Your task to perform on an android device: change the clock style Image 0: 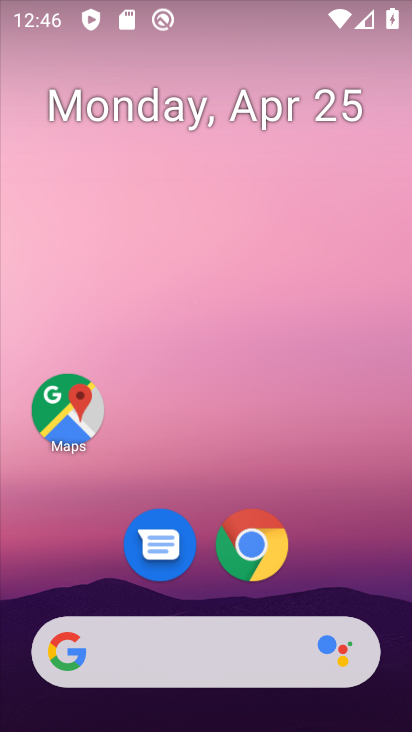
Step 0: drag from (334, 567) to (321, 109)
Your task to perform on an android device: change the clock style Image 1: 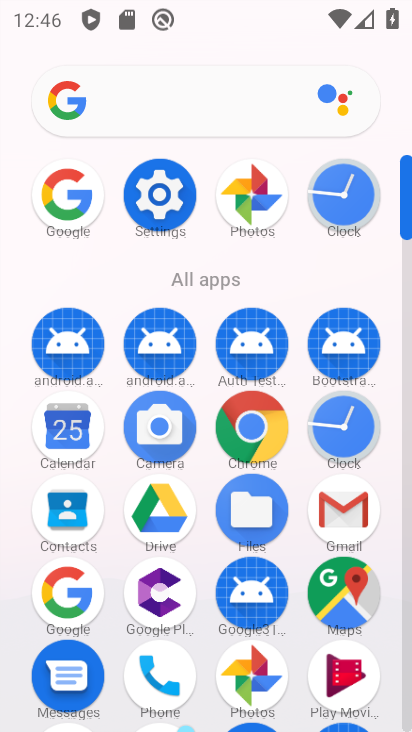
Step 1: click (344, 212)
Your task to perform on an android device: change the clock style Image 2: 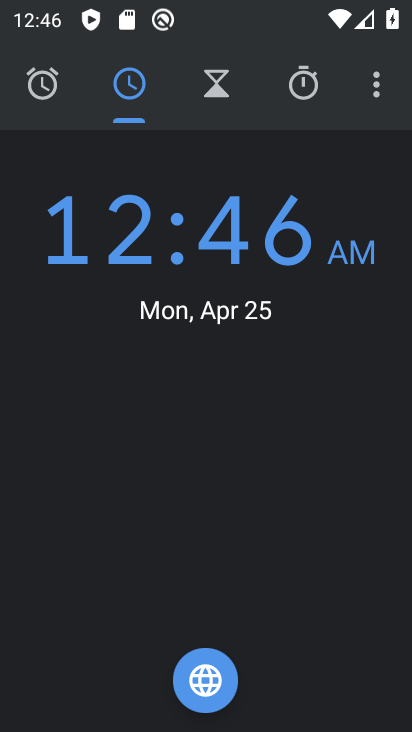
Step 2: click (371, 85)
Your task to perform on an android device: change the clock style Image 3: 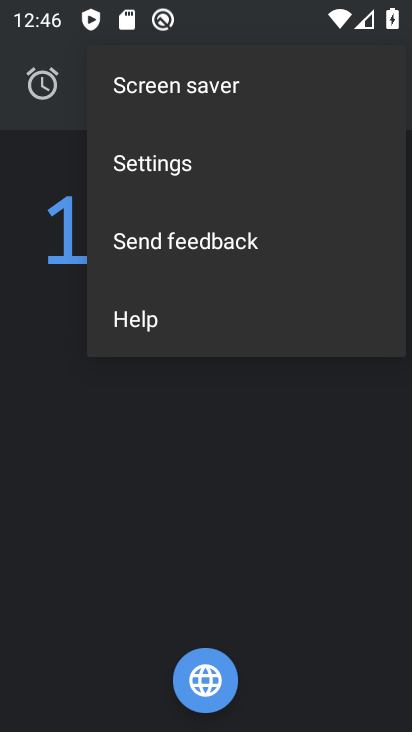
Step 3: click (208, 173)
Your task to perform on an android device: change the clock style Image 4: 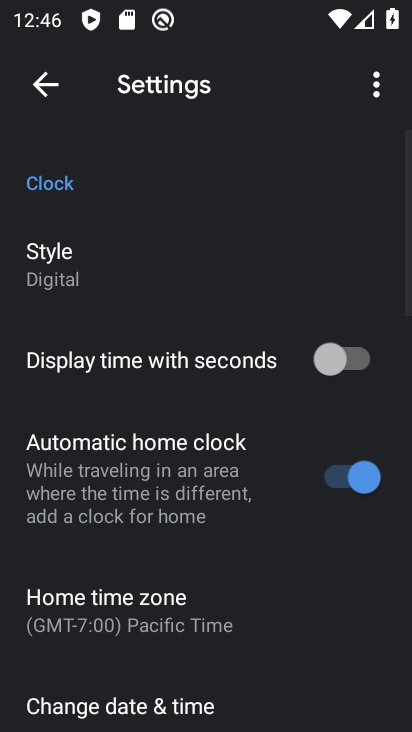
Step 4: click (92, 270)
Your task to perform on an android device: change the clock style Image 5: 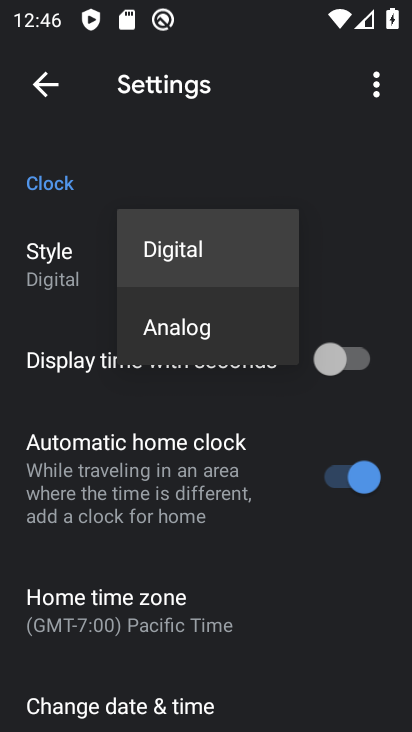
Step 5: click (165, 321)
Your task to perform on an android device: change the clock style Image 6: 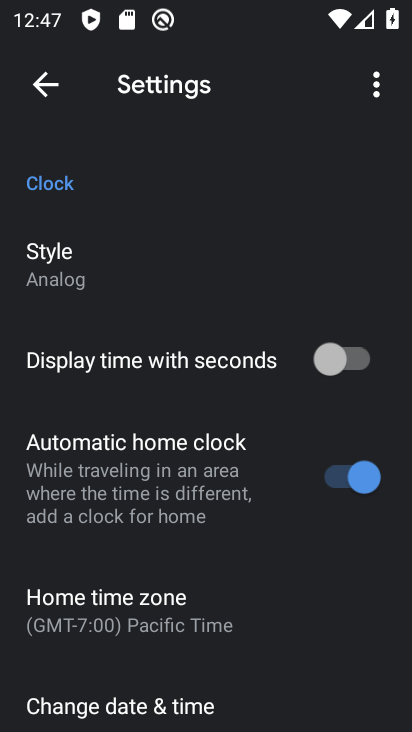
Step 6: click (87, 279)
Your task to perform on an android device: change the clock style Image 7: 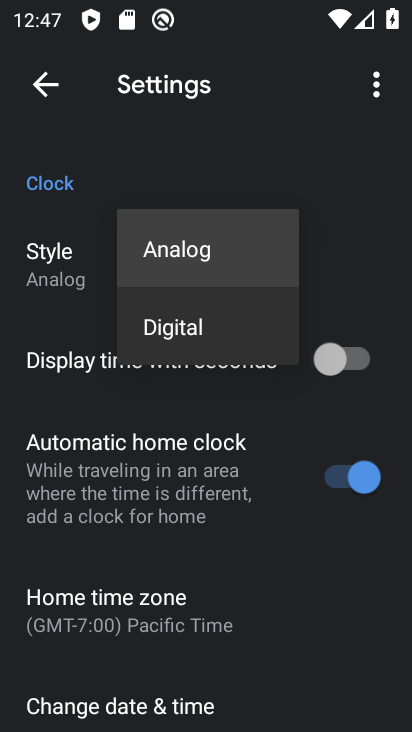
Step 7: click (206, 331)
Your task to perform on an android device: change the clock style Image 8: 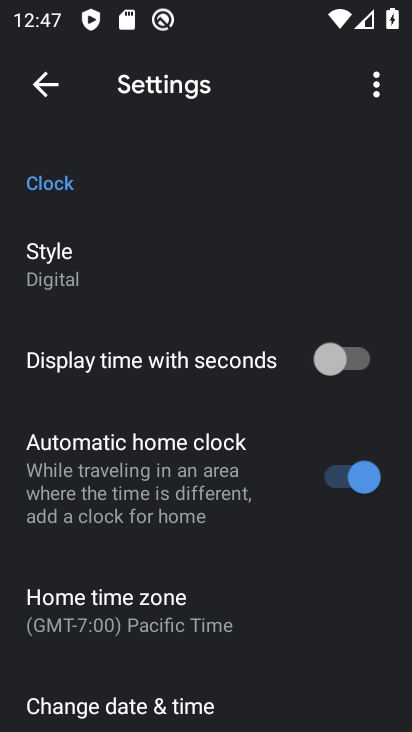
Step 8: task complete